Your task to perform on an android device: Go to eBay Image 0: 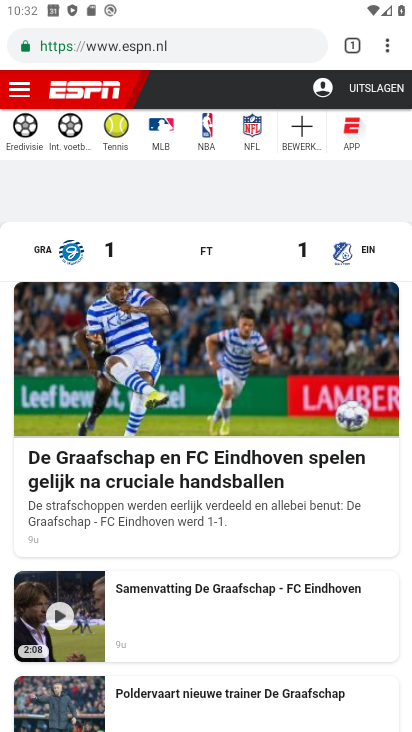
Step 0: press home button
Your task to perform on an android device: Go to eBay Image 1: 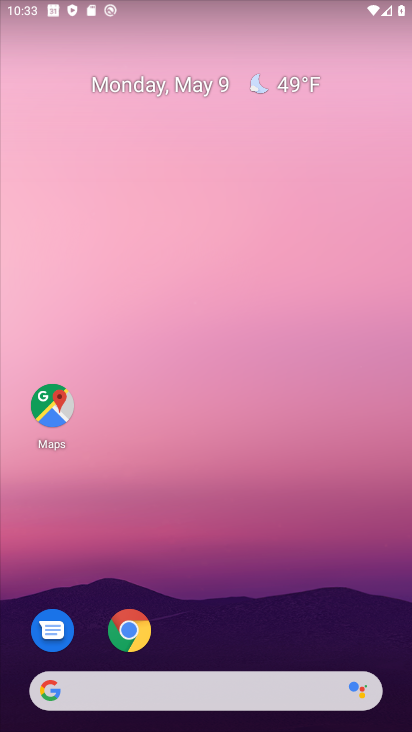
Step 1: click (130, 624)
Your task to perform on an android device: Go to eBay Image 2: 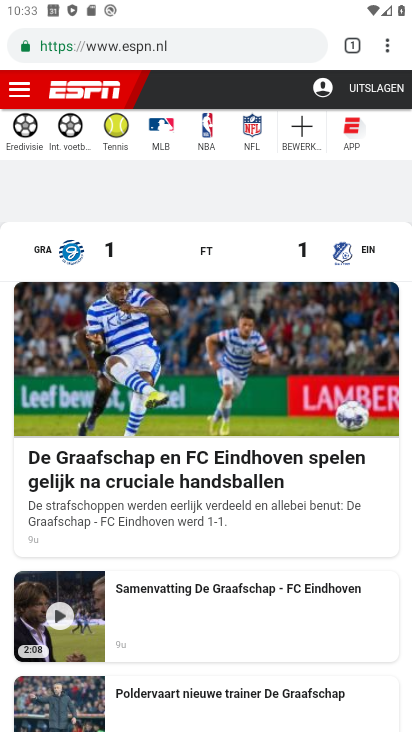
Step 2: click (343, 41)
Your task to perform on an android device: Go to eBay Image 3: 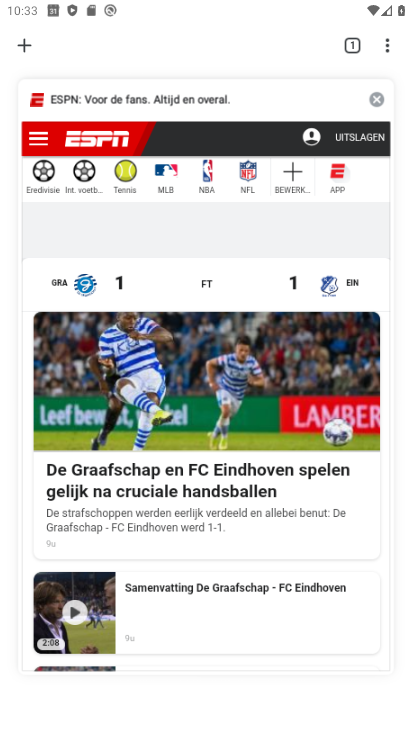
Step 3: click (22, 43)
Your task to perform on an android device: Go to eBay Image 4: 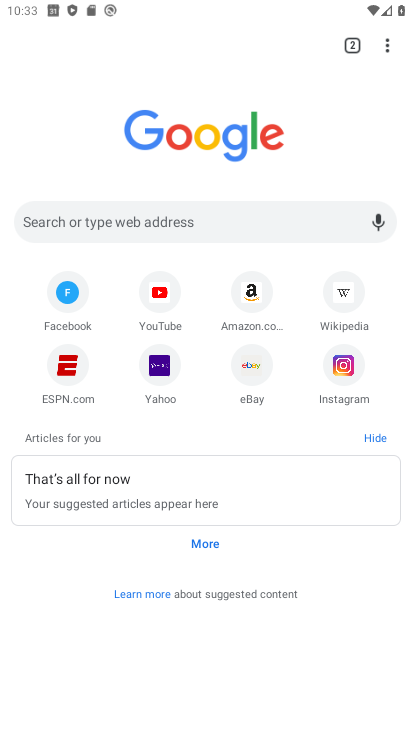
Step 4: click (138, 225)
Your task to perform on an android device: Go to eBay Image 5: 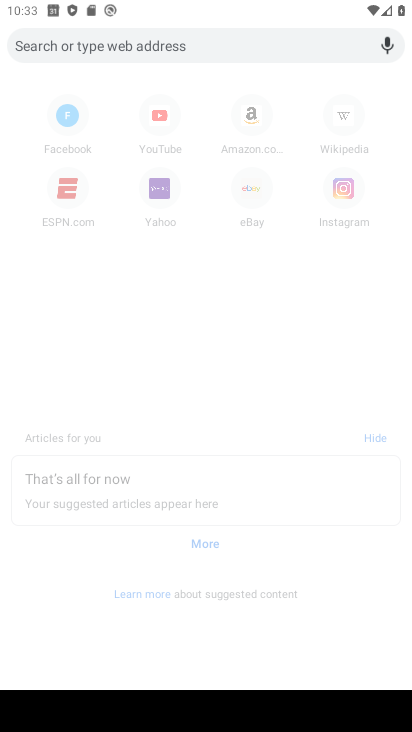
Step 5: click (247, 379)
Your task to perform on an android device: Go to eBay Image 6: 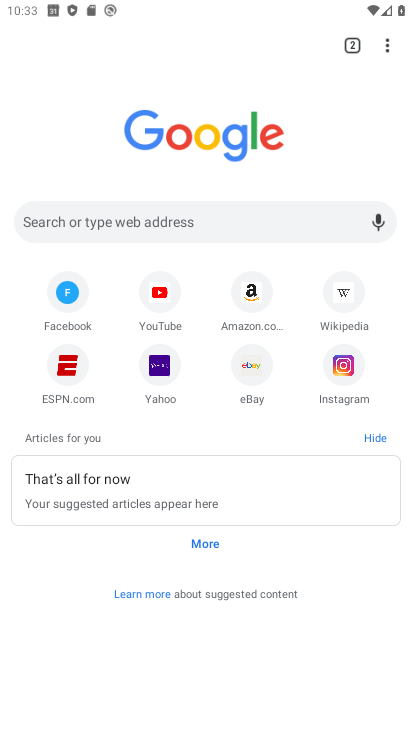
Step 6: click (256, 352)
Your task to perform on an android device: Go to eBay Image 7: 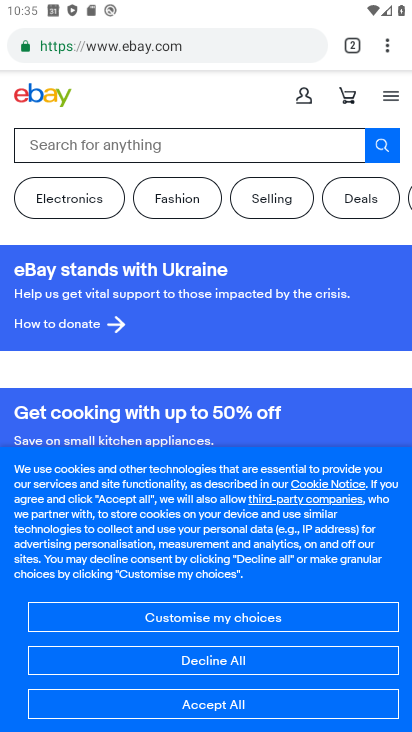
Step 7: task complete